Your task to perform on an android device: Show me popular games on the Play Store Image 0: 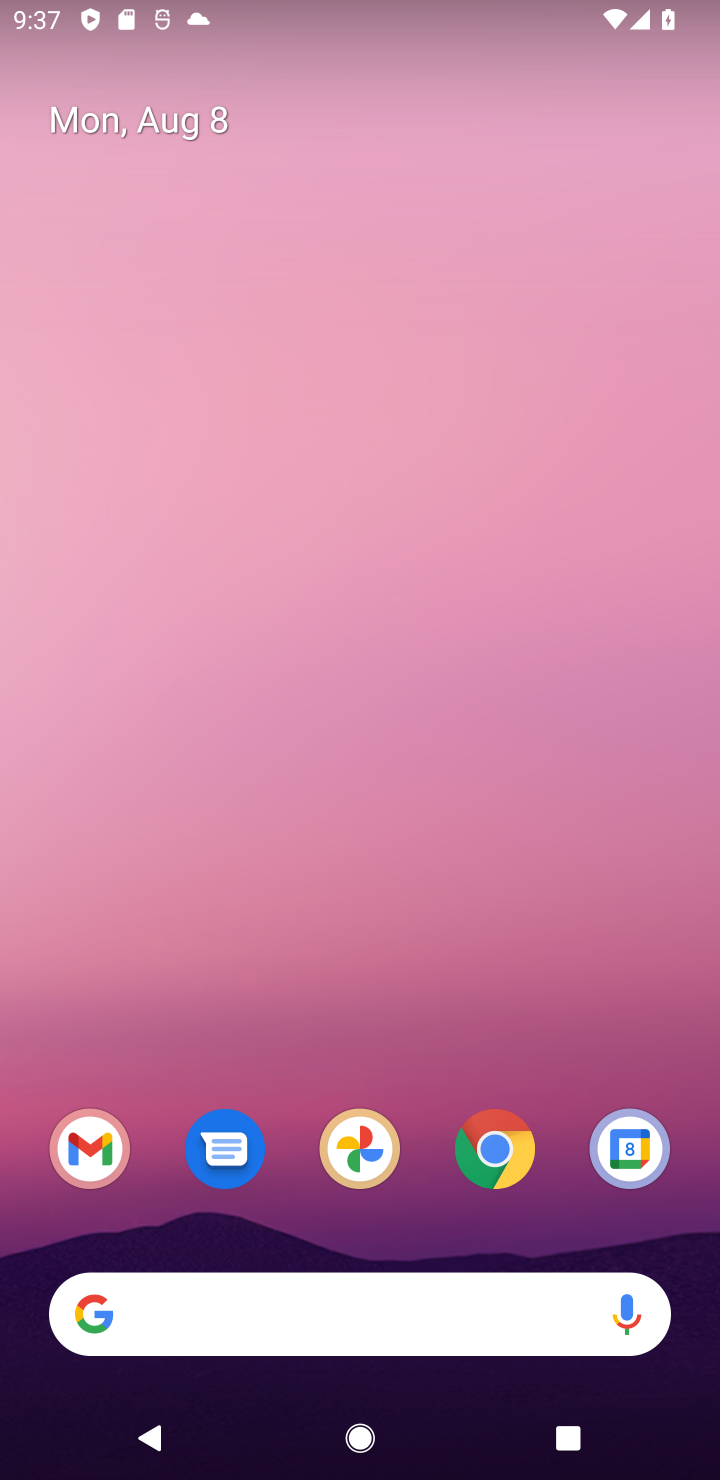
Step 0: drag from (268, 1327) to (247, 523)
Your task to perform on an android device: Show me popular games on the Play Store Image 1: 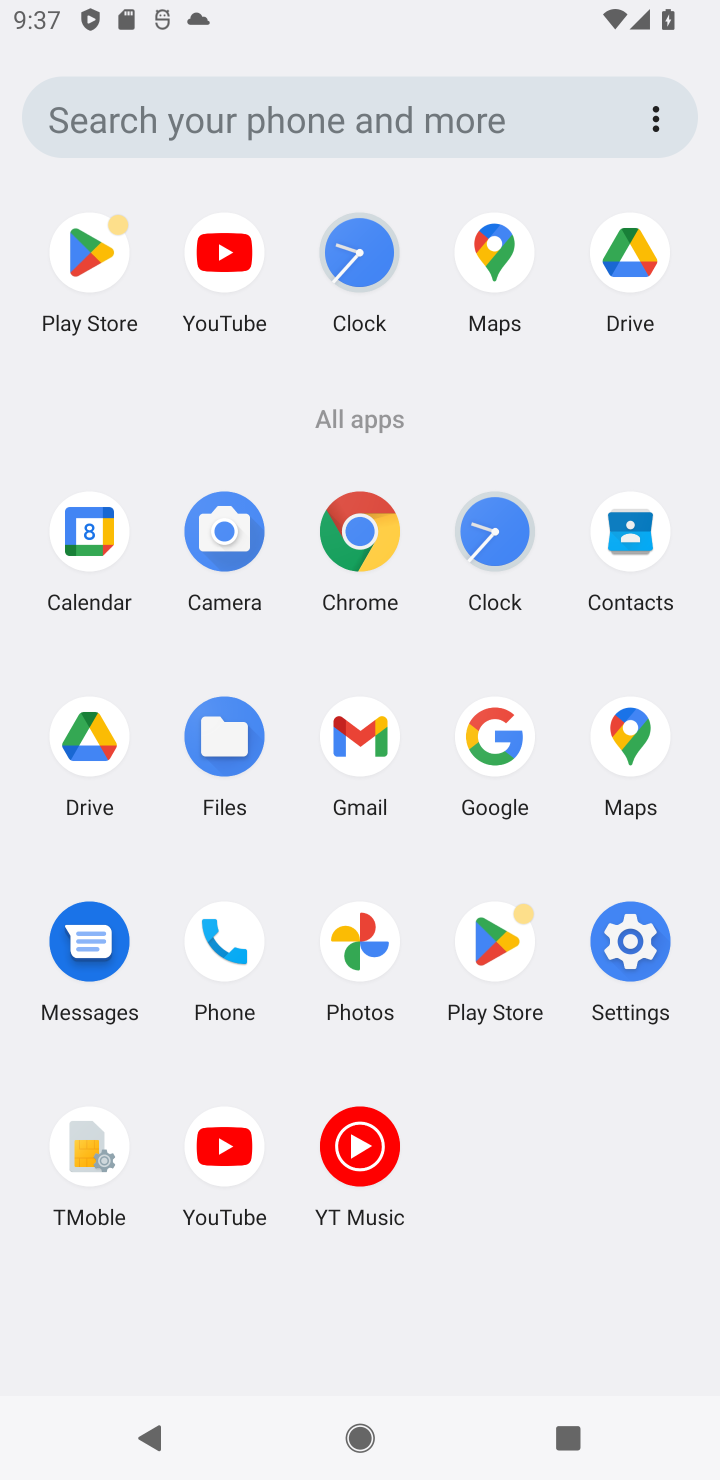
Step 1: click (494, 943)
Your task to perform on an android device: Show me popular games on the Play Store Image 2: 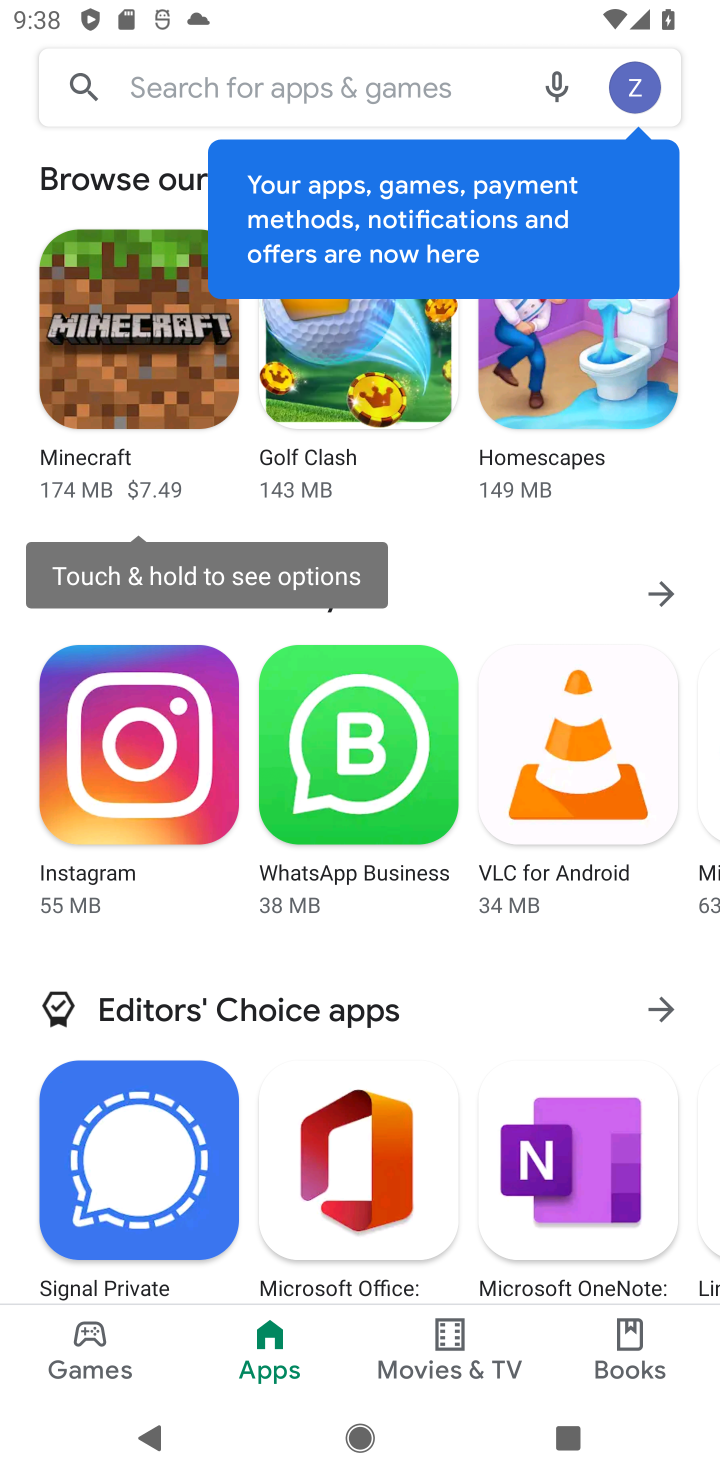
Step 2: click (185, 80)
Your task to perform on an android device: Show me popular games on the Play Store Image 3: 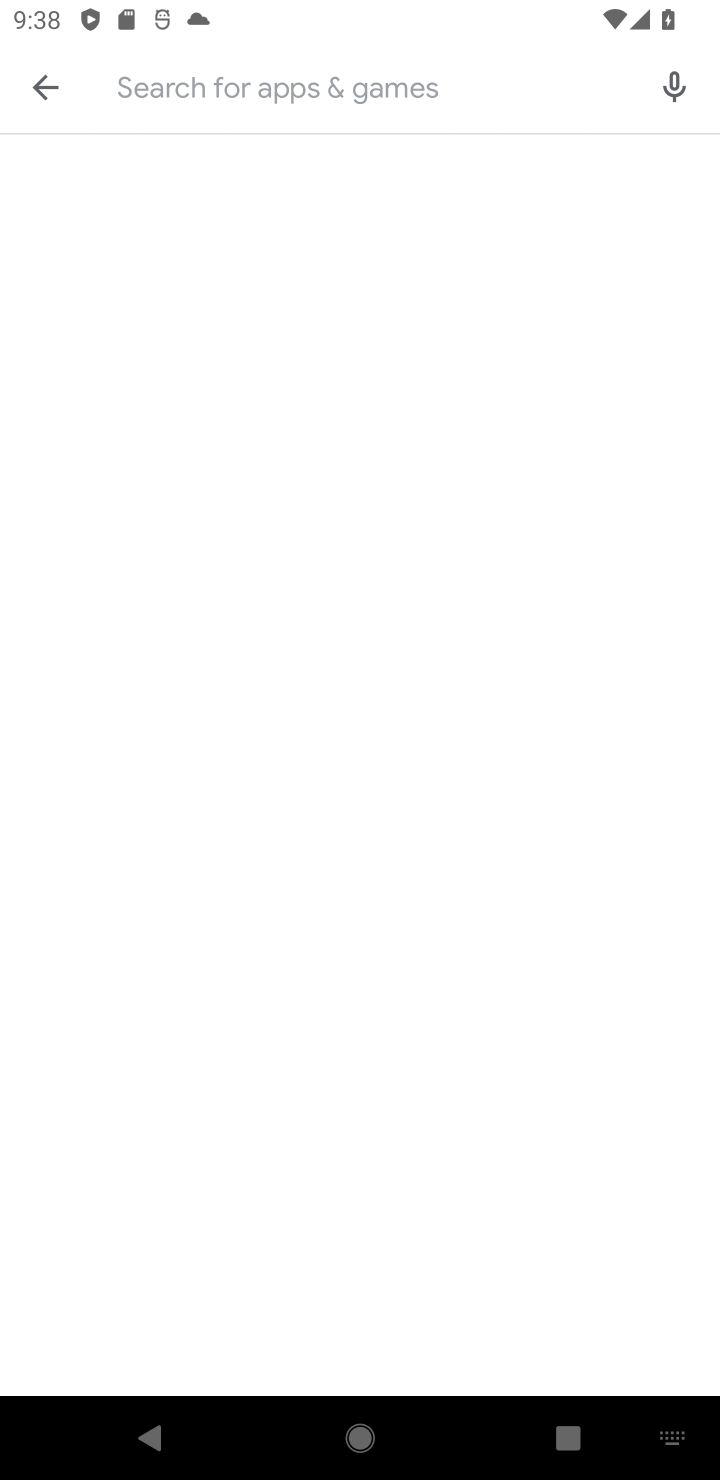
Step 3: type "popular games"
Your task to perform on an android device: Show me popular games on the Play Store Image 4: 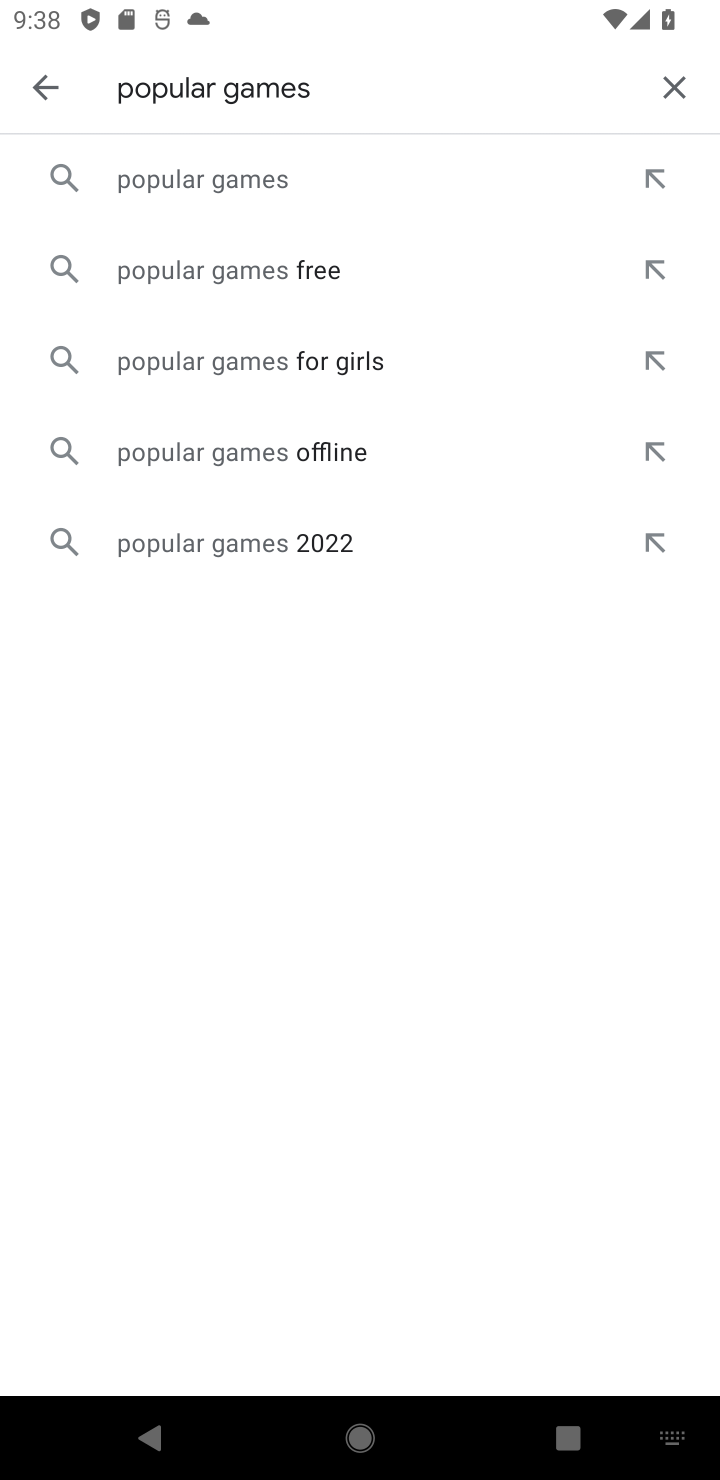
Step 4: click (257, 206)
Your task to perform on an android device: Show me popular games on the Play Store Image 5: 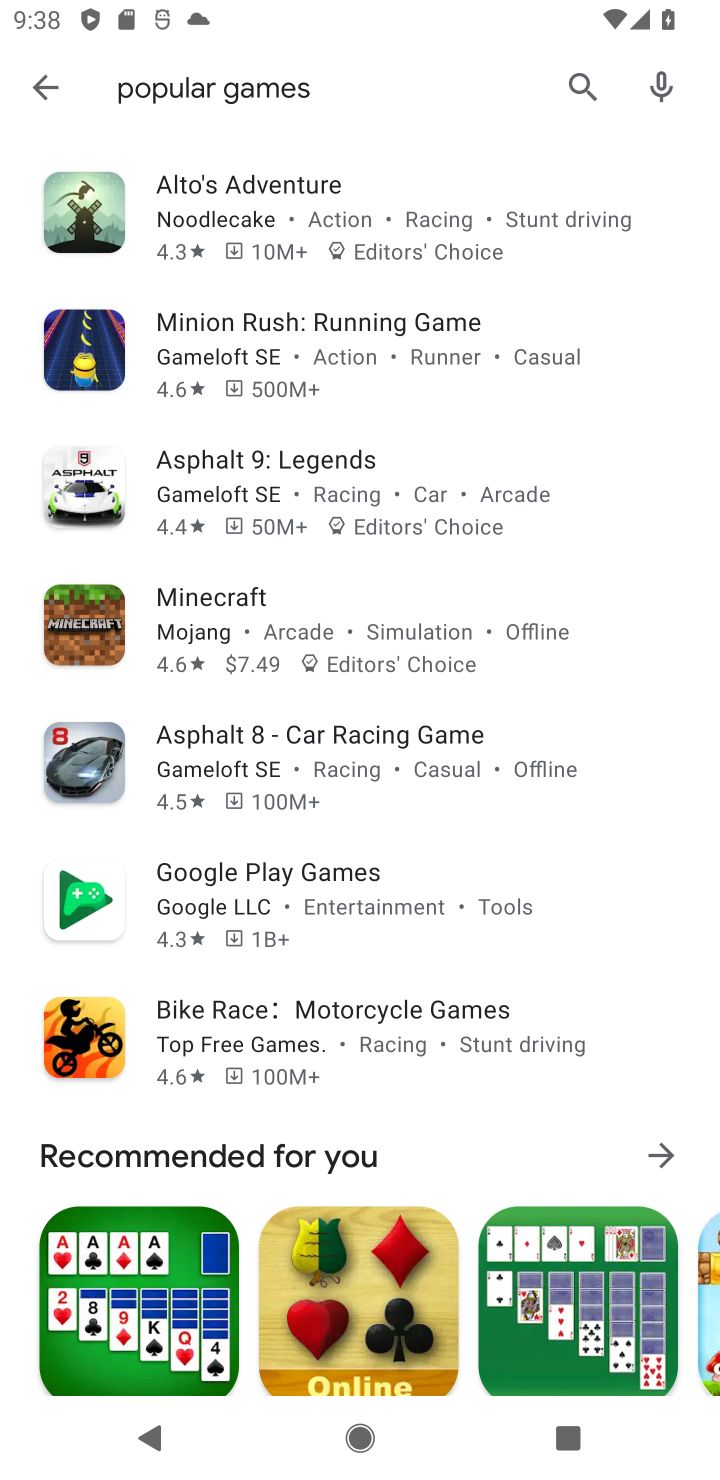
Step 5: task complete